Your task to perform on an android device: Go to privacy settings Image 0: 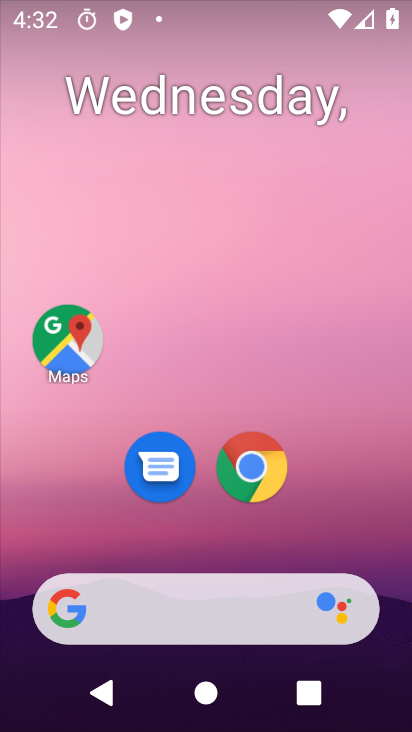
Step 0: click (252, 462)
Your task to perform on an android device: Go to privacy settings Image 1: 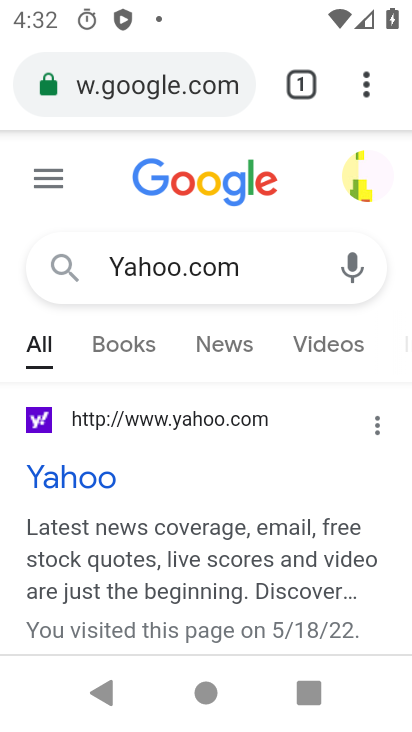
Step 1: click (360, 89)
Your task to perform on an android device: Go to privacy settings Image 2: 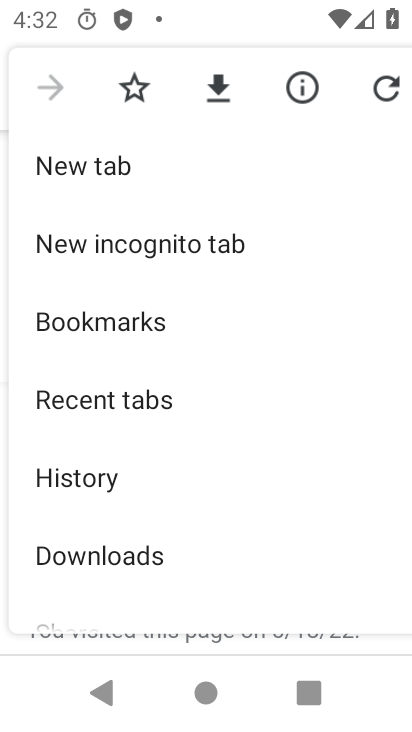
Step 2: drag from (259, 550) to (253, 392)
Your task to perform on an android device: Go to privacy settings Image 3: 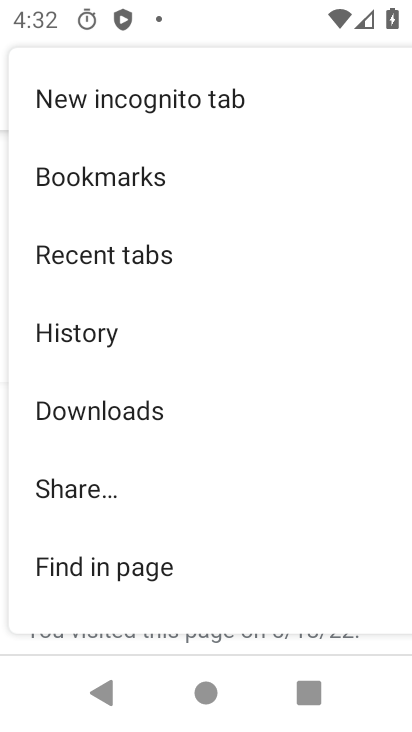
Step 3: drag from (296, 601) to (309, 419)
Your task to perform on an android device: Go to privacy settings Image 4: 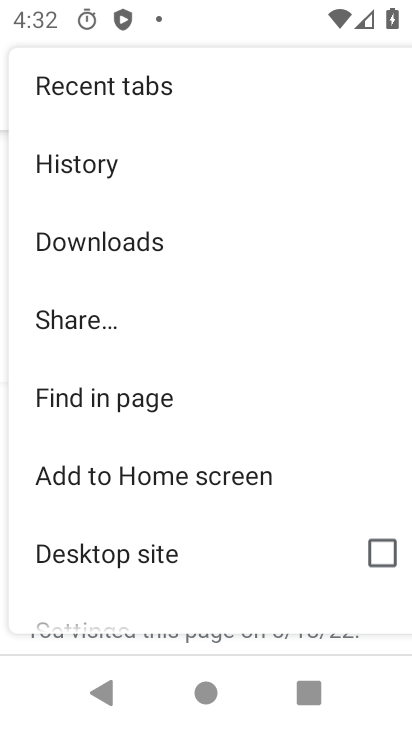
Step 4: drag from (239, 604) to (256, 395)
Your task to perform on an android device: Go to privacy settings Image 5: 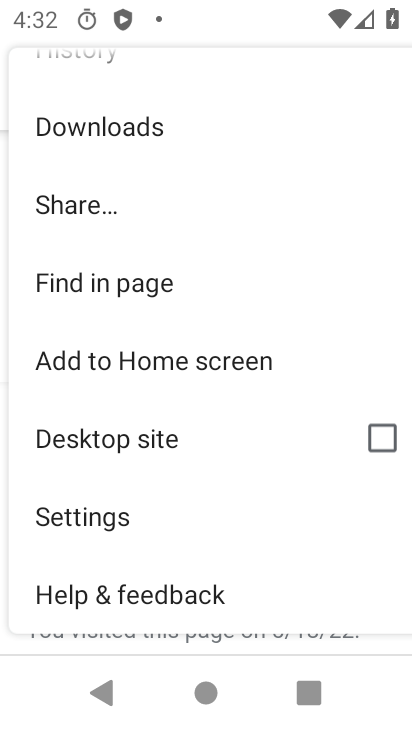
Step 5: click (84, 521)
Your task to perform on an android device: Go to privacy settings Image 6: 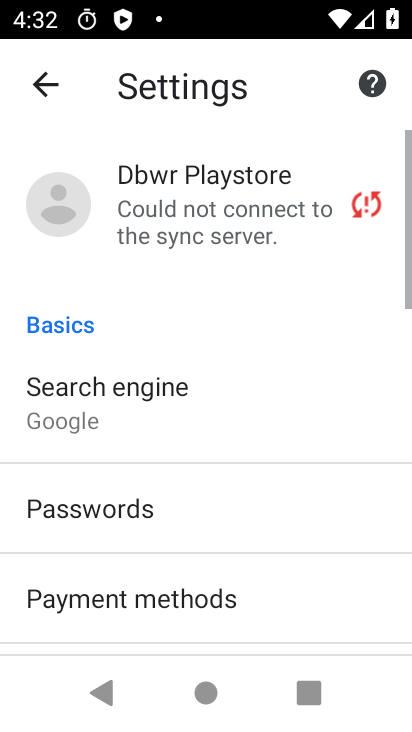
Step 6: drag from (338, 599) to (315, 380)
Your task to perform on an android device: Go to privacy settings Image 7: 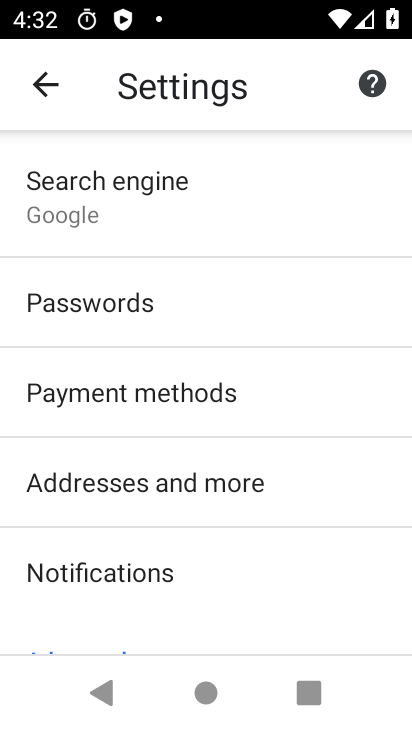
Step 7: drag from (273, 517) to (283, 463)
Your task to perform on an android device: Go to privacy settings Image 8: 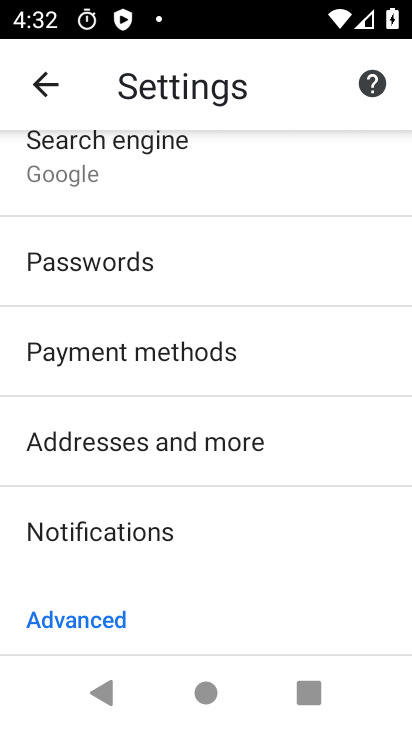
Step 8: drag from (302, 569) to (298, 446)
Your task to perform on an android device: Go to privacy settings Image 9: 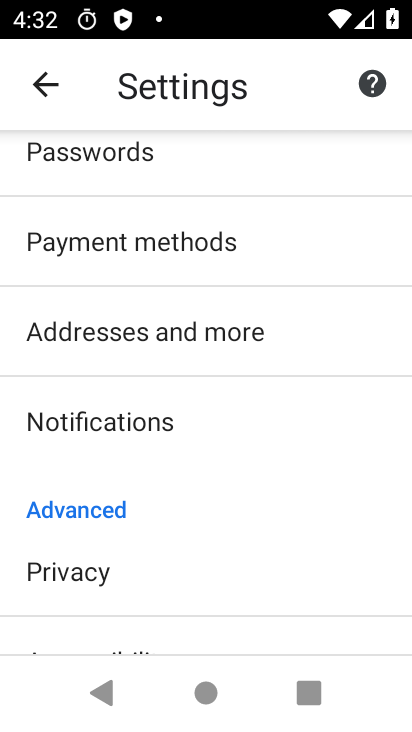
Step 9: click (74, 562)
Your task to perform on an android device: Go to privacy settings Image 10: 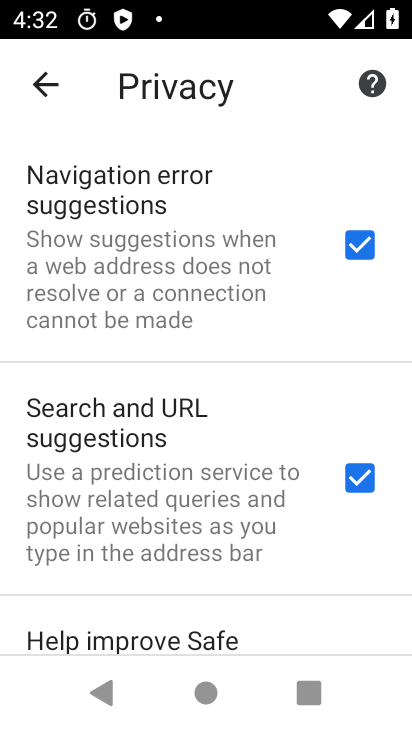
Step 10: task complete